Your task to perform on an android device: move a message to another label in the gmail app Image 0: 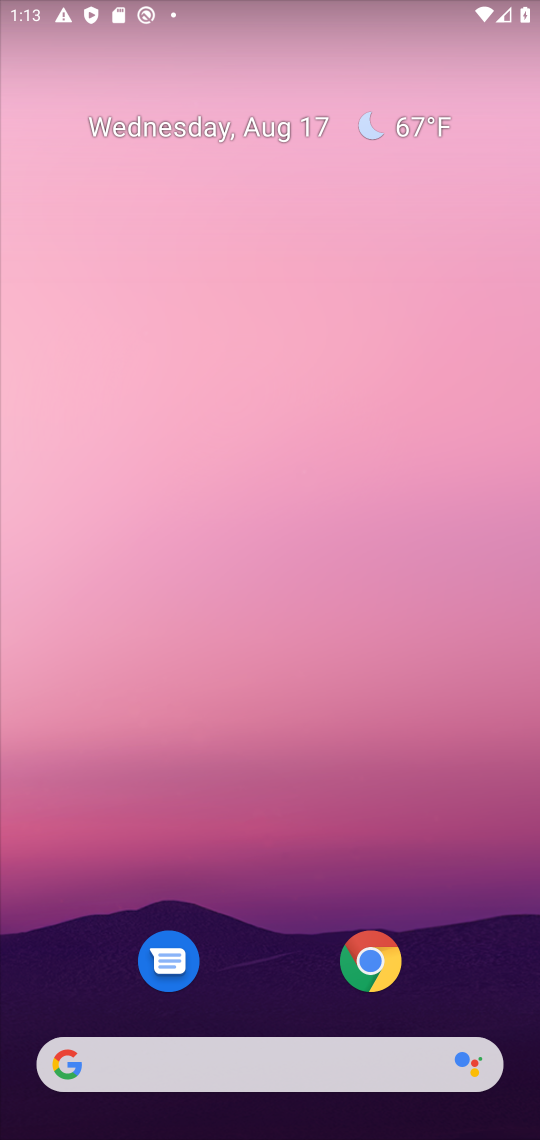
Step 0: drag from (182, 773) to (169, 312)
Your task to perform on an android device: move a message to another label in the gmail app Image 1: 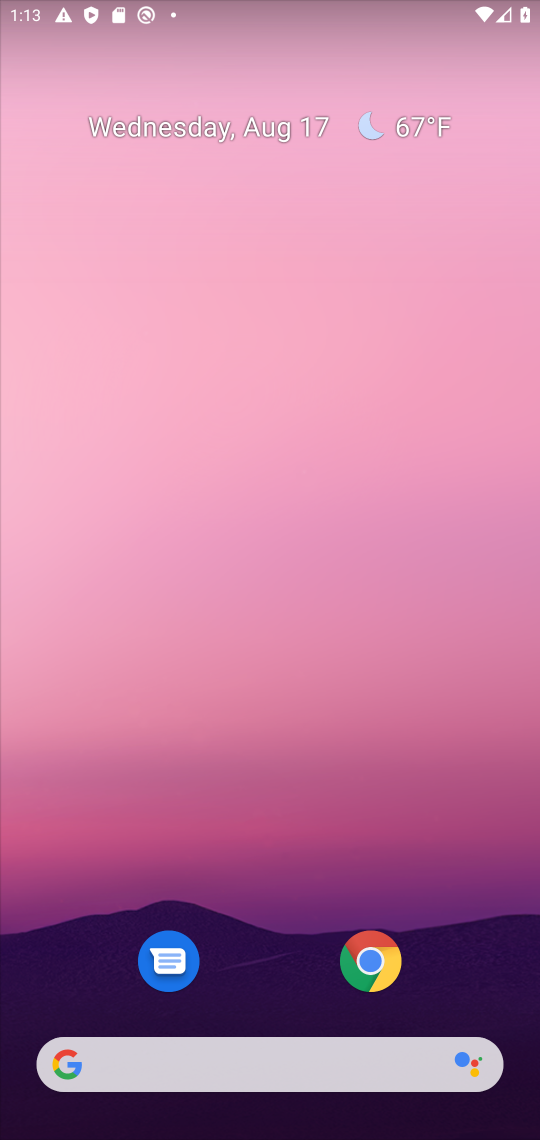
Step 1: click (202, 56)
Your task to perform on an android device: move a message to another label in the gmail app Image 2: 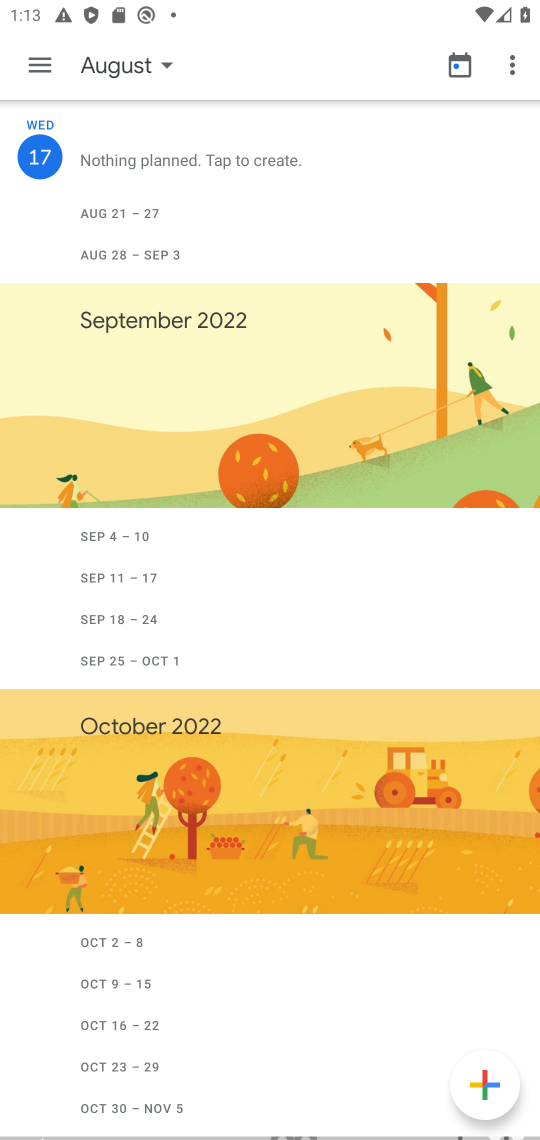
Step 2: press home button
Your task to perform on an android device: move a message to another label in the gmail app Image 3: 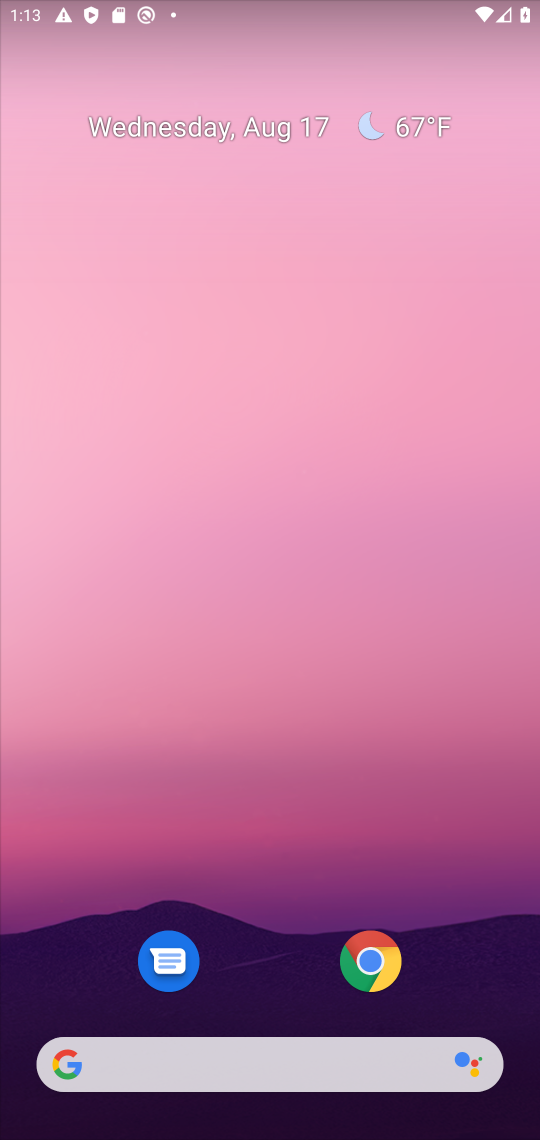
Step 3: drag from (253, 1006) to (331, 103)
Your task to perform on an android device: move a message to another label in the gmail app Image 4: 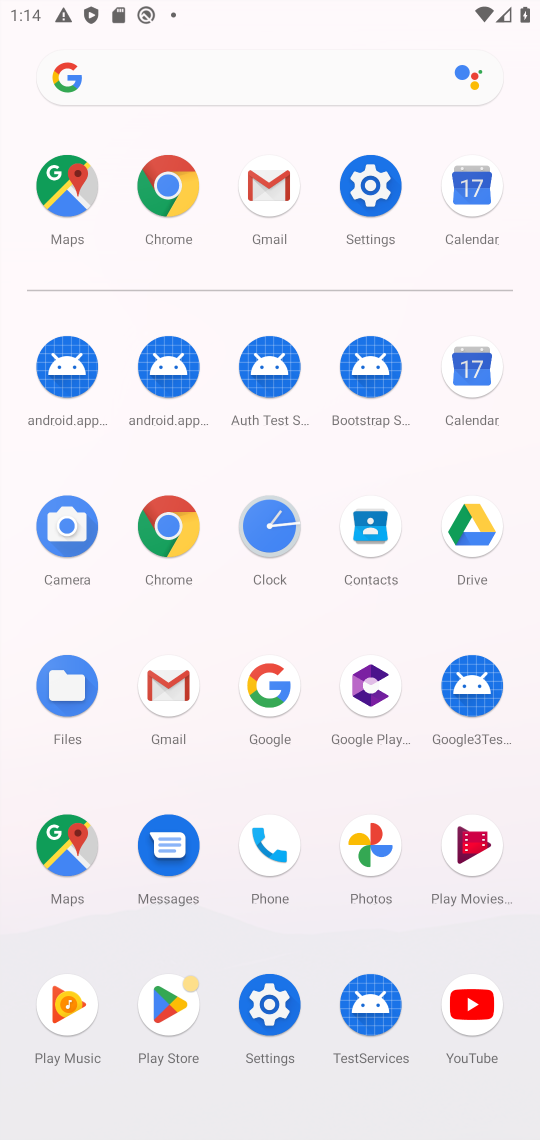
Step 4: click (166, 697)
Your task to perform on an android device: move a message to another label in the gmail app Image 5: 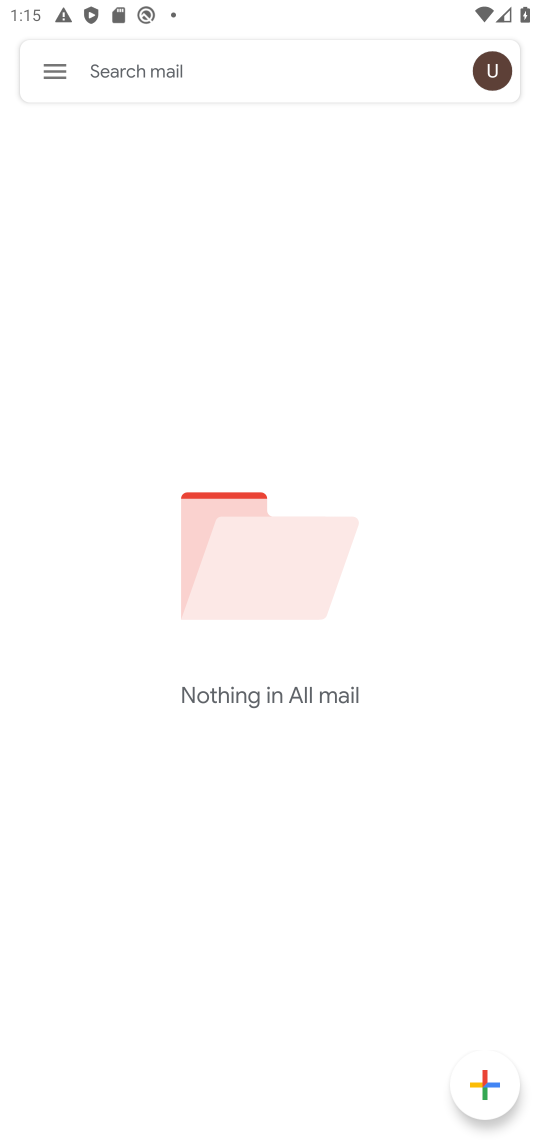
Step 5: task complete